Your task to perform on an android device: open app "Fetch Rewards" (install if not already installed) Image 0: 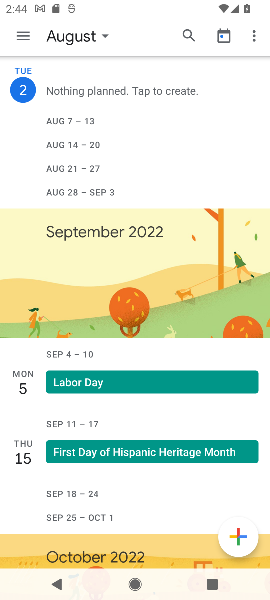
Step 0: press home button
Your task to perform on an android device: open app "Fetch Rewards" (install if not already installed) Image 1: 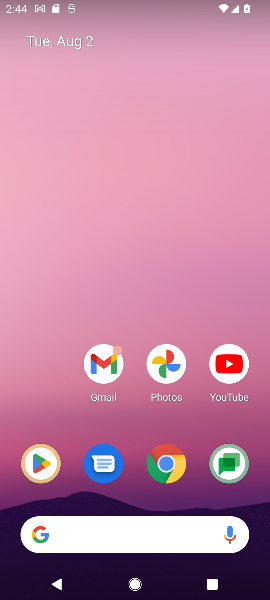
Step 1: click (41, 467)
Your task to perform on an android device: open app "Fetch Rewards" (install if not already installed) Image 2: 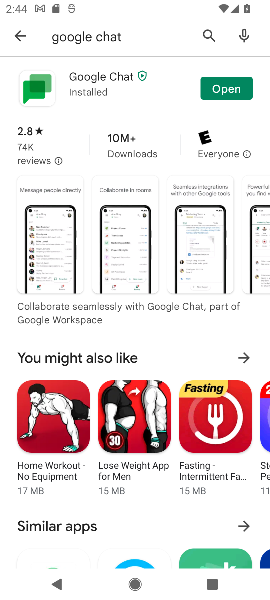
Step 2: click (207, 28)
Your task to perform on an android device: open app "Fetch Rewards" (install if not already installed) Image 3: 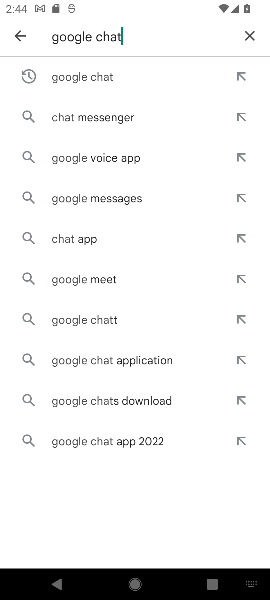
Step 3: click (250, 34)
Your task to perform on an android device: open app "Fetch Rewards" (install if not already installed) Image 4: 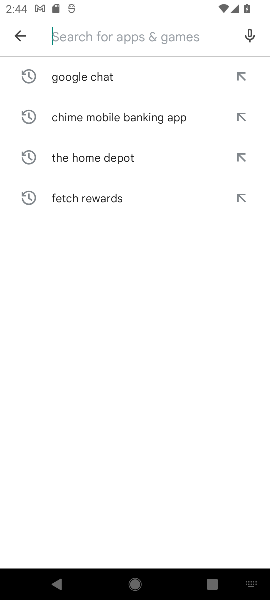
Step 4: type "Fetch Rewards"
Your task to perform on an android device: open app "Fetch Rewards" (install if not already installed) Image 5: 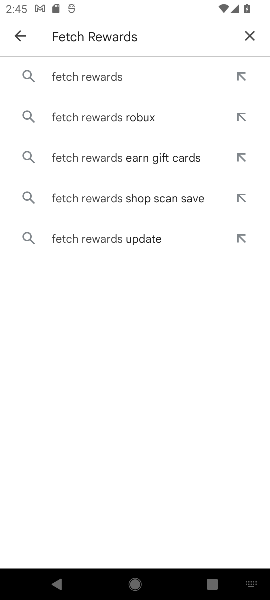
Step 5: click (92, 75)
Your task to perform on an android device: open app "Fetch Rewards" (install if not already installed) Image 6: 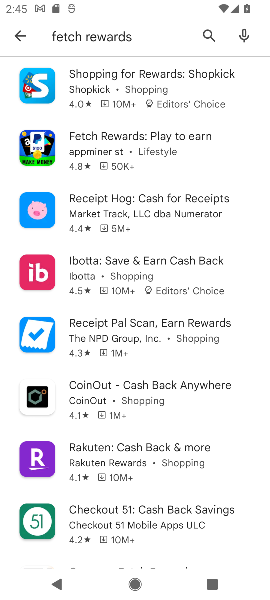
Step 6: click (118, 143)
Your task to perform on an android device: open app "Fetch Rewards" (install if not already installed) Image 7: 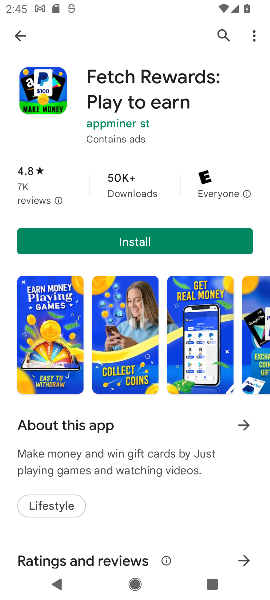
Step 7: click (129, 236)
Your task to perform on an android device: open app "Fetch Rewards" (install if not already installed) Image 8: 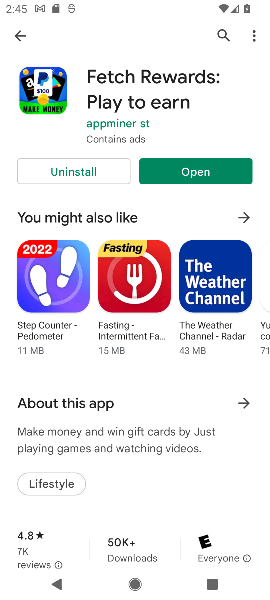
Step 8: click (194, 168)
Your task to perform on an android device: open app "Fetch Rewards" (install if not already installed) Image 9: 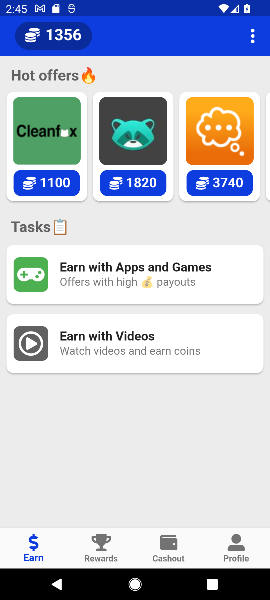
Step 9: task complete